Your task to perform on an android device: Open Maps and search for coffee Image 0: 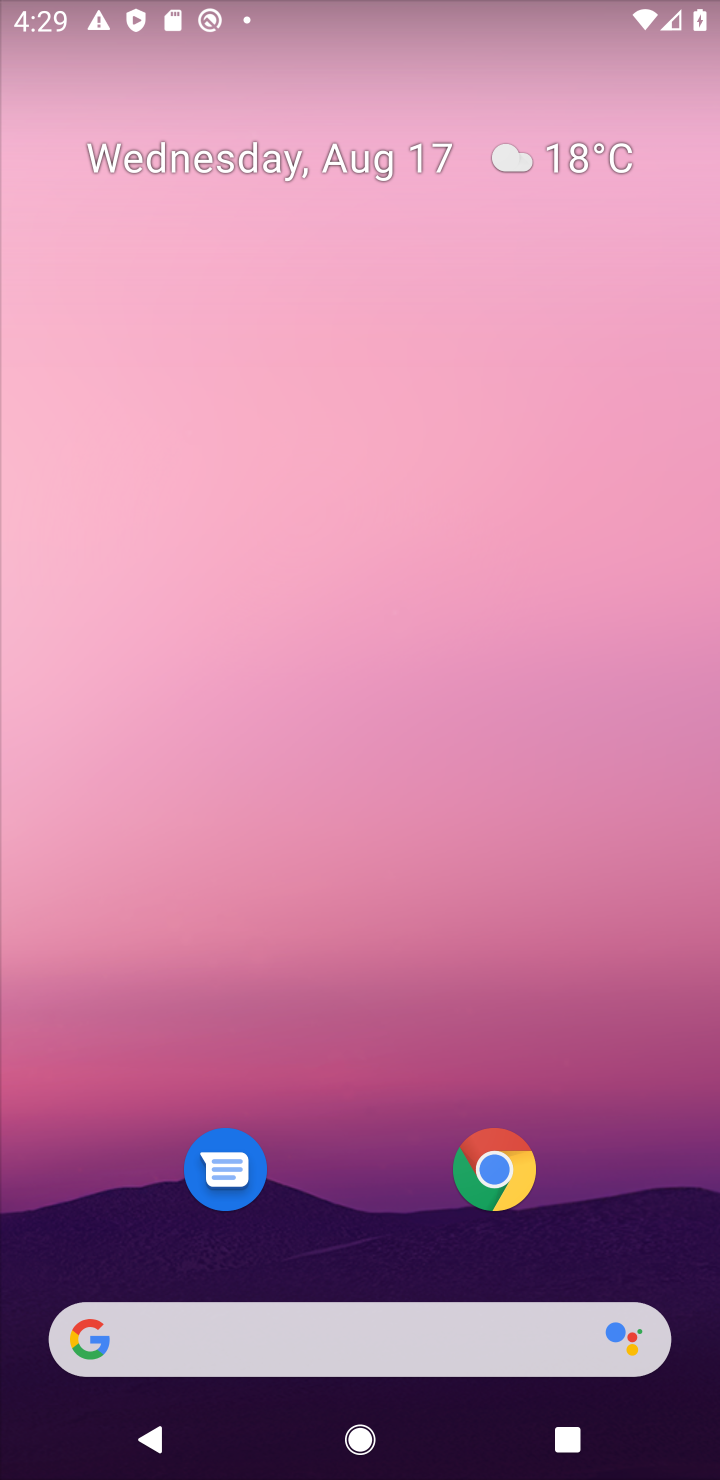
Step 0: drag from (312, 1178) to (293, 295)
Your task to perform on an android device: Open Maps and search for coffee Image 1: 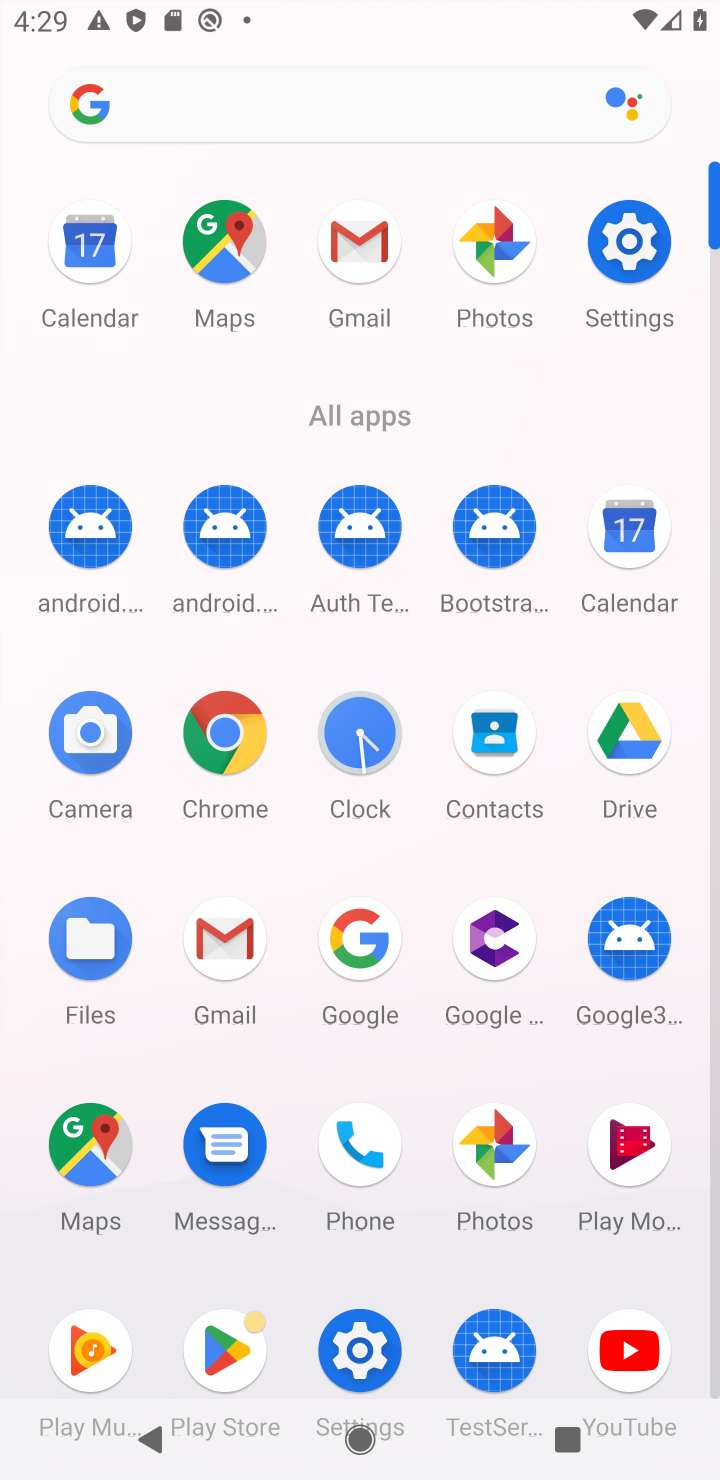
Step 1: click (67, 1176)
Your task to perform on an android device: Open Maps and search for coffee Image 2: 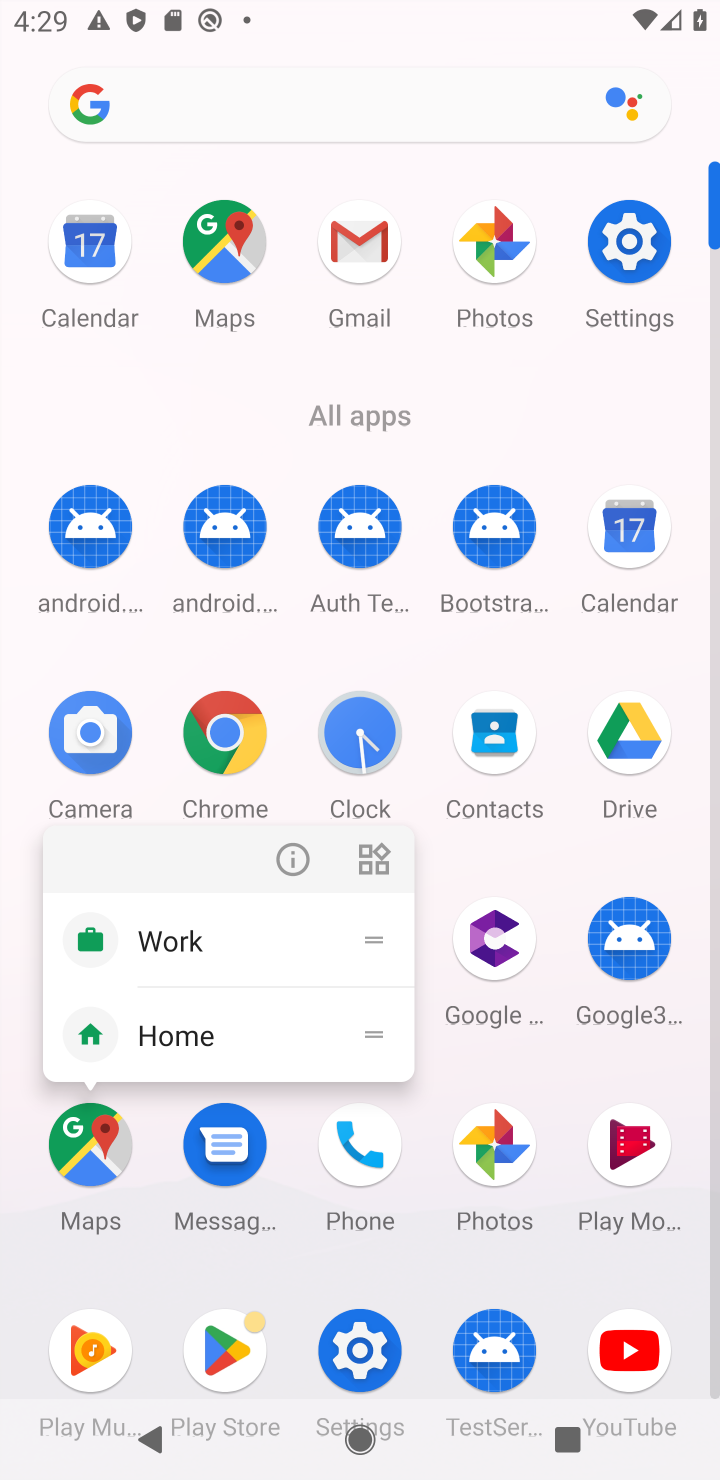
Step 2: click (67, 1154)
Your task to perform on an android device: Open Maps and search for coffee Image 3: 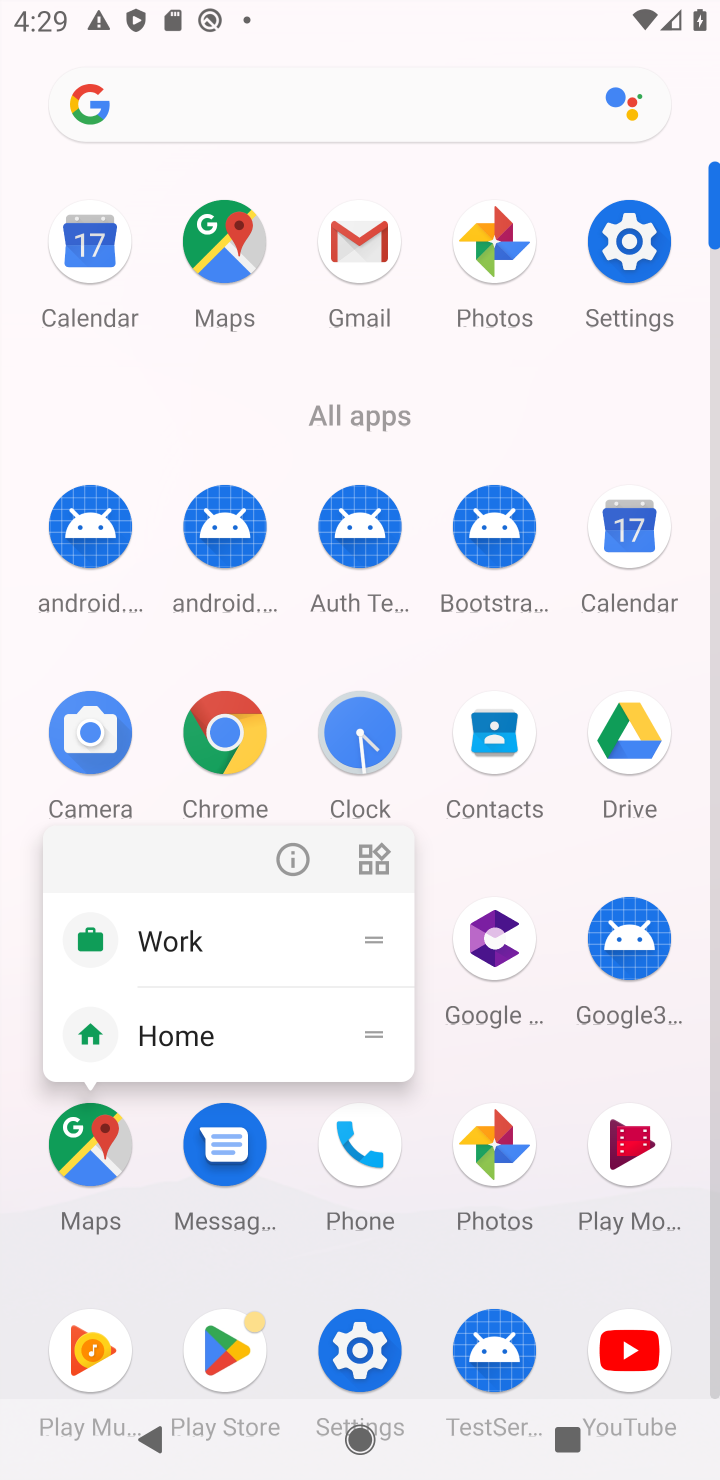
Step 3: click (67, 1152)
Your task to perform on an android device: Open Maps and search for coffee Image 4: 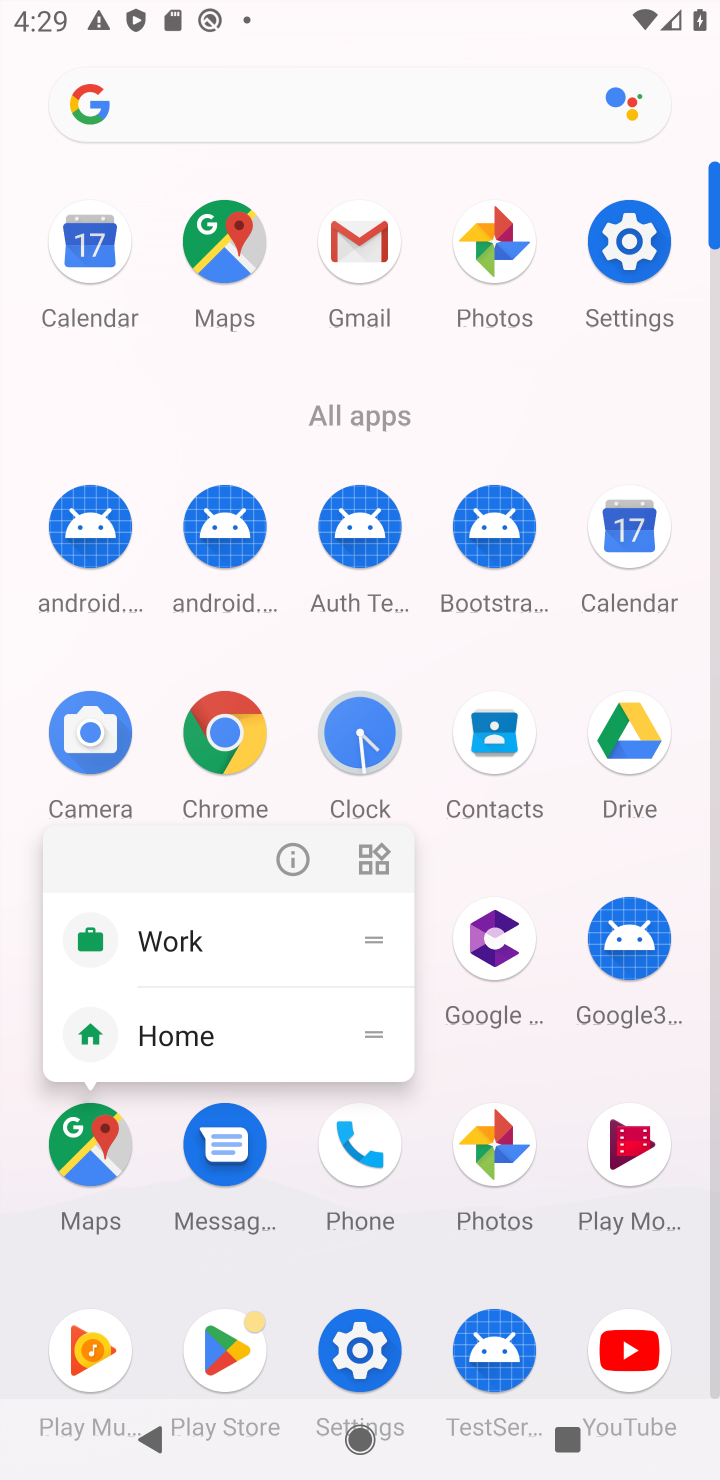
Step 4: click (67, 1152)
Your task to perform on an android device: Open Maps and search for coffee Image 5: 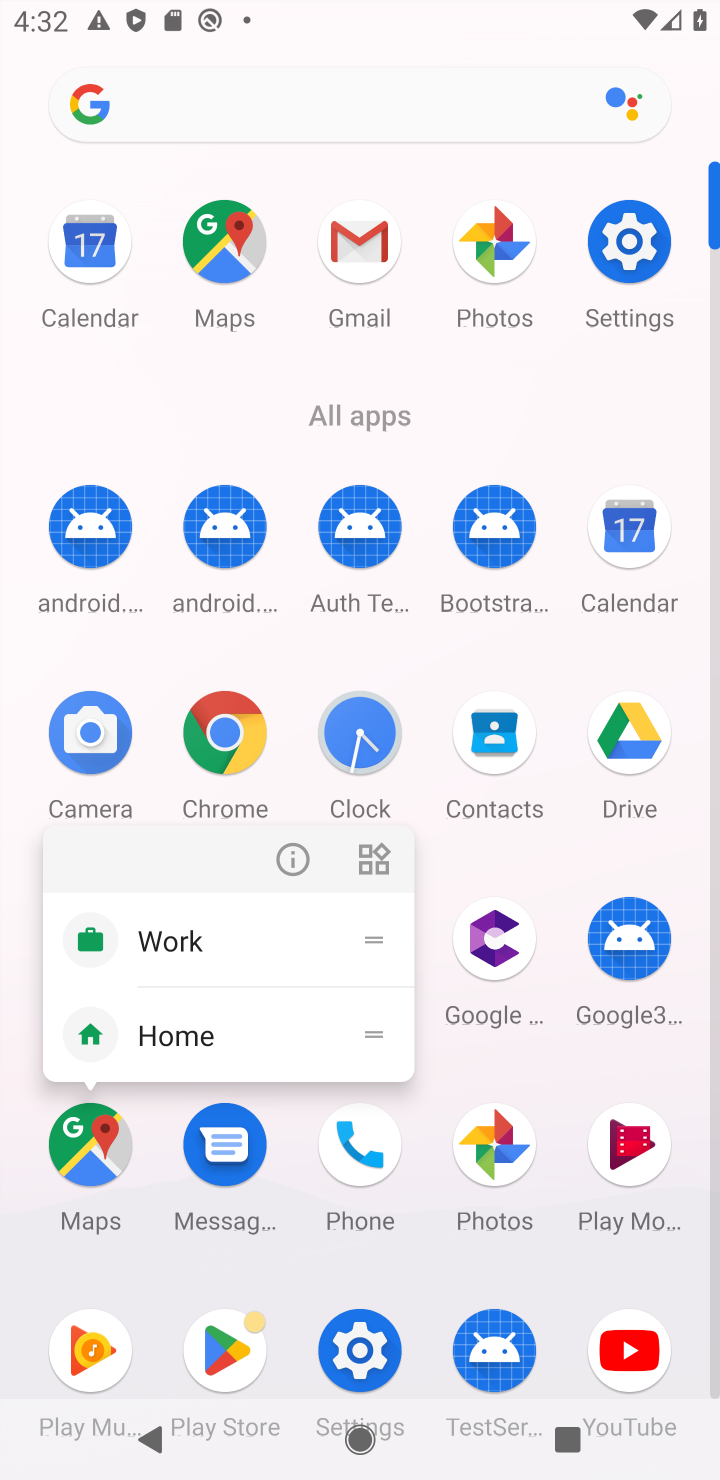
Step 5: click (85, 1172)
Your task to perform on an android device: Open Maps and search for coffee Image 6: 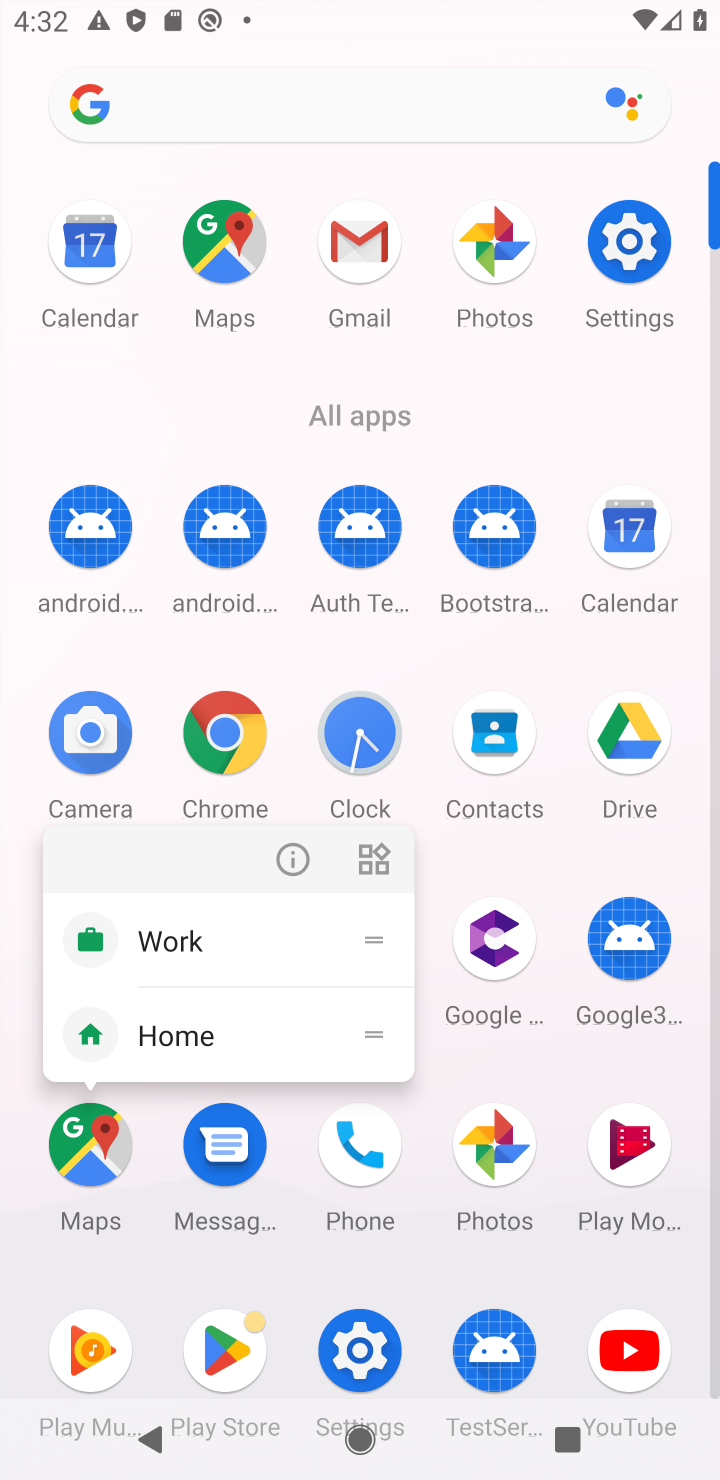
Step 6: click (91, 1164)
Your task to perform on an android device: Open Maps and search for coffee Image 7: 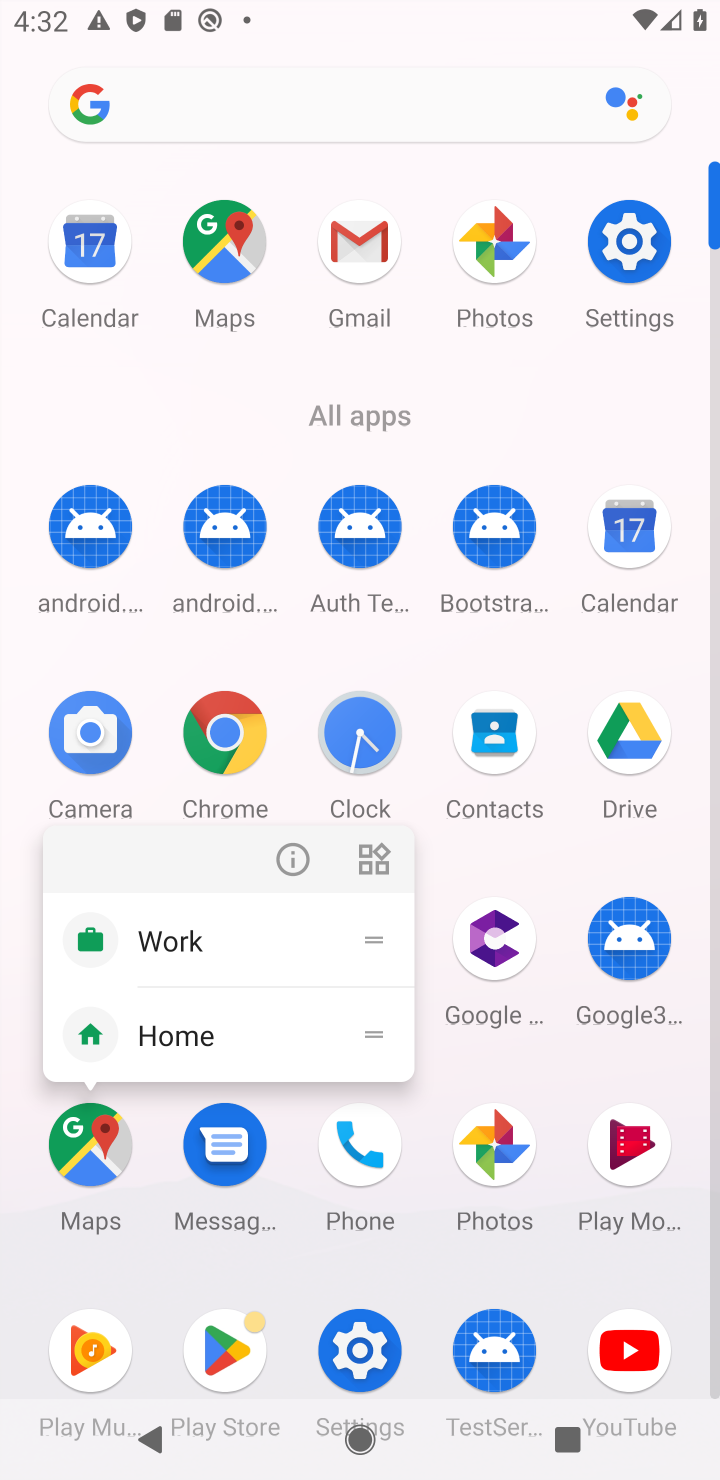
Step 7: click (91, 1164)
Your task to perform on an android device: Open Maps and search for coffee Image 8: 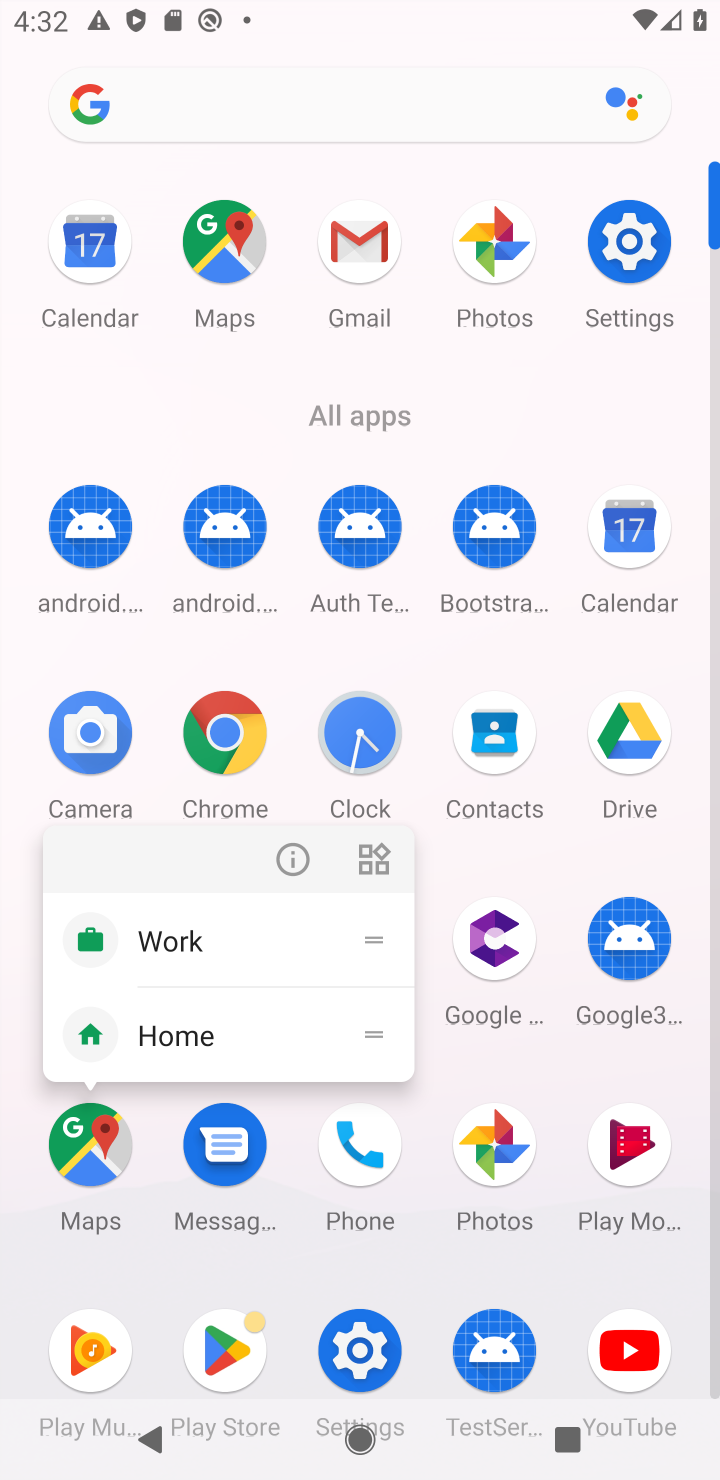
Step 8: click (91, 1164)
Your task to perform on an android device: Open Maps and search for coffee Image 9: 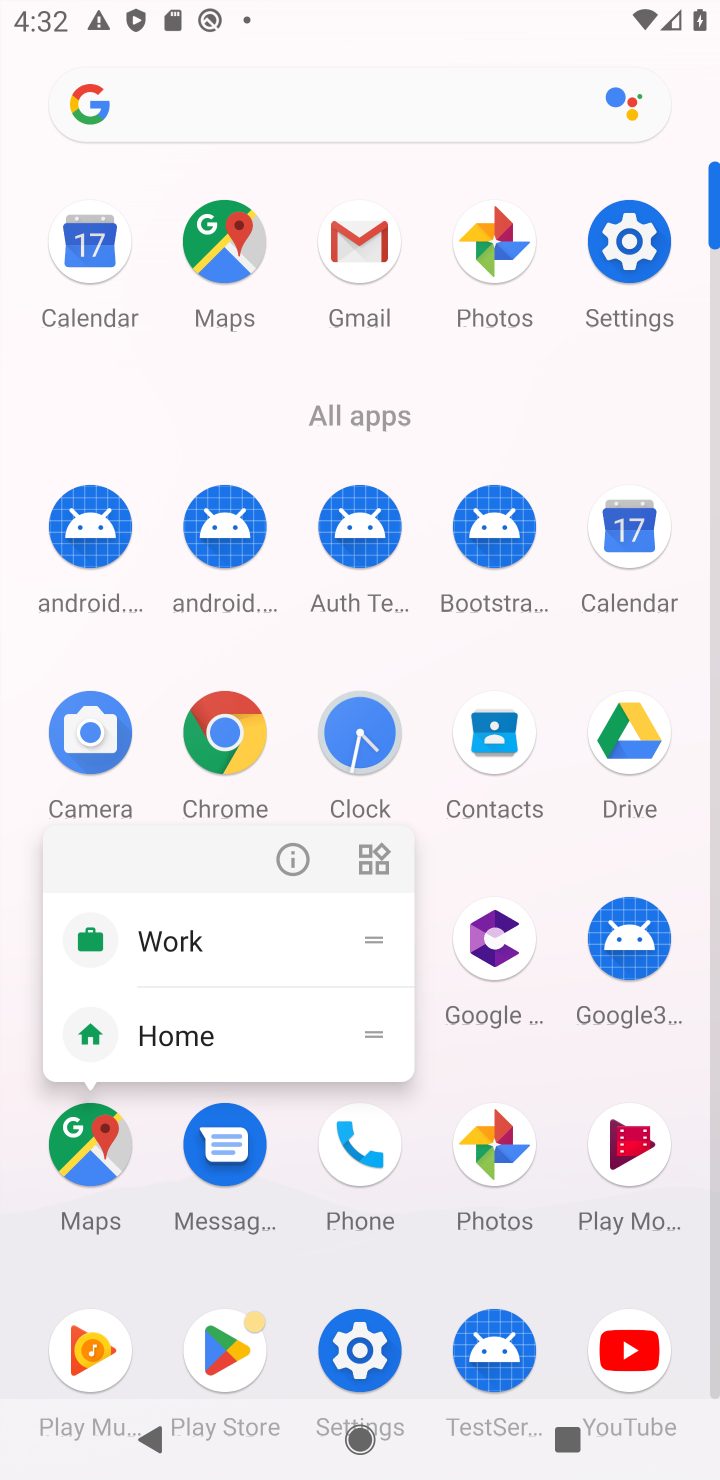
Step 9: click (91, 1164)
Your task to perform on an android device: Open Maps and search for coffee Image 10: 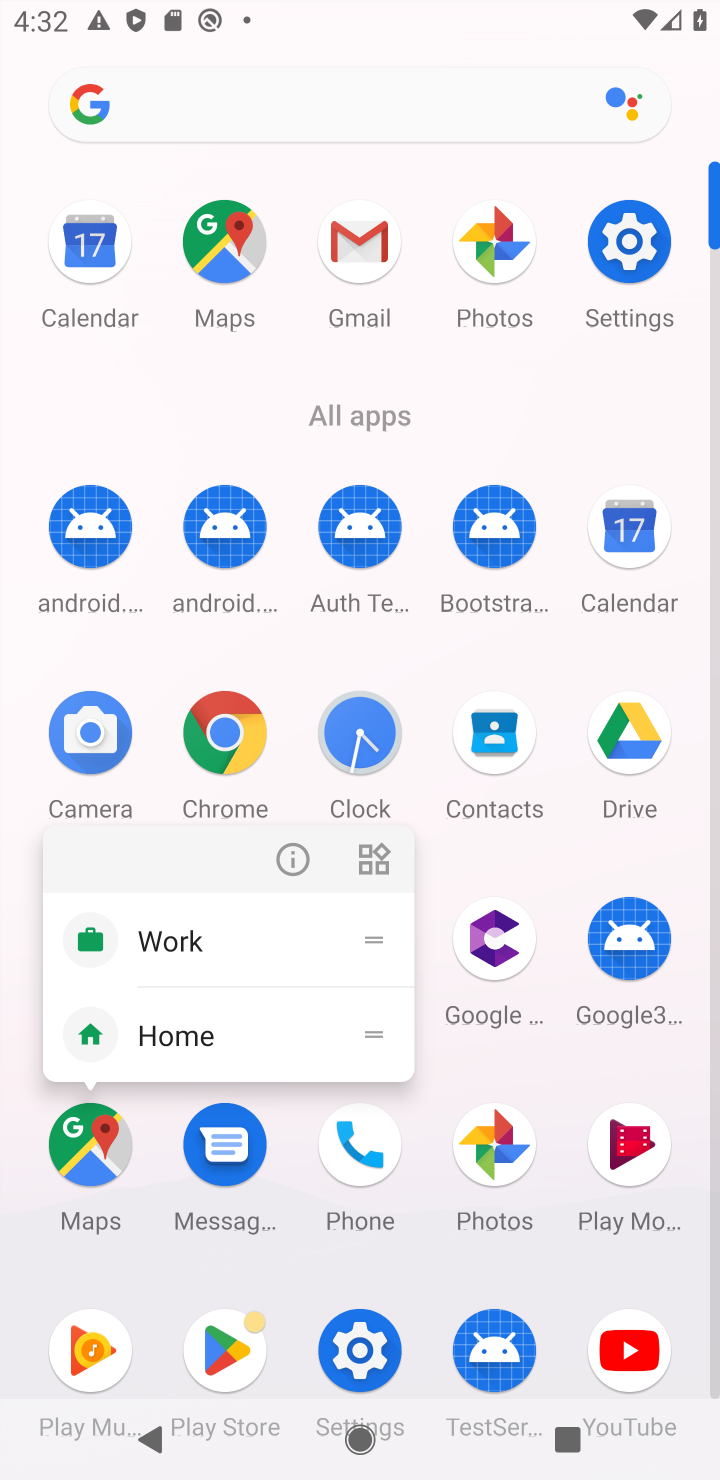
Step 10: click (85, 1164)
Your task to perform on an android device: Open Maps and search for coffee Image 11: 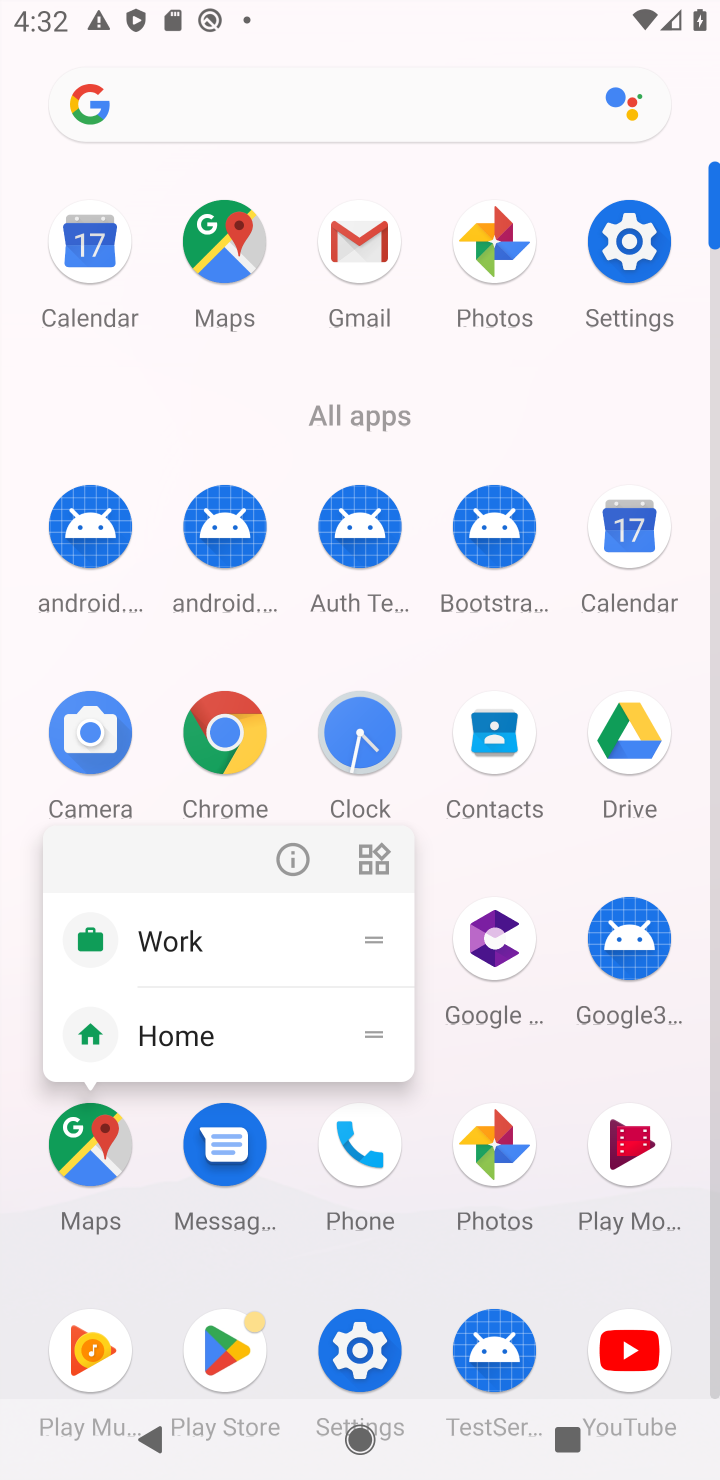
Step 11: click (85, 1164)
Your task to perform on an android device: Open Maps and search for coffee Image 12: 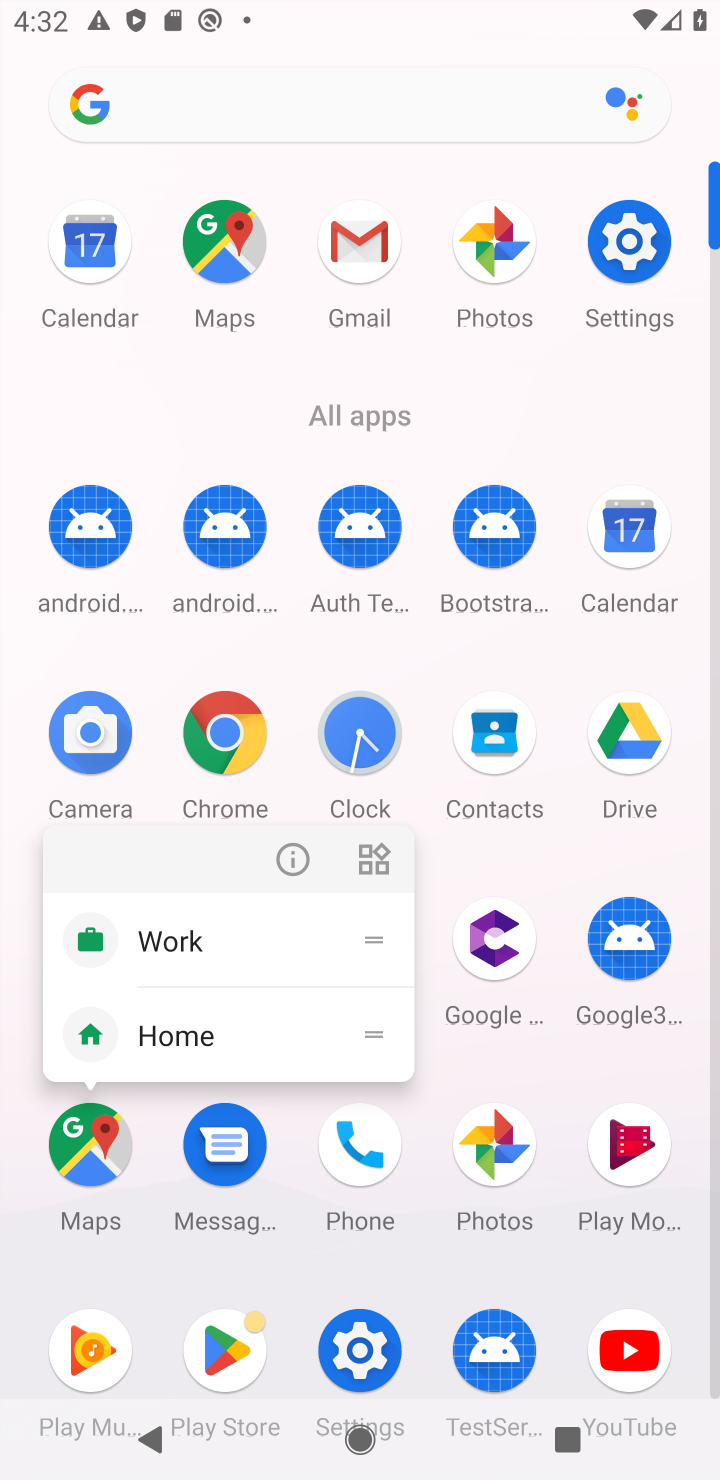
Step 12: click (85, 1164)
Your task to perform on an android device: Open Maps and search for coffee Image 13: 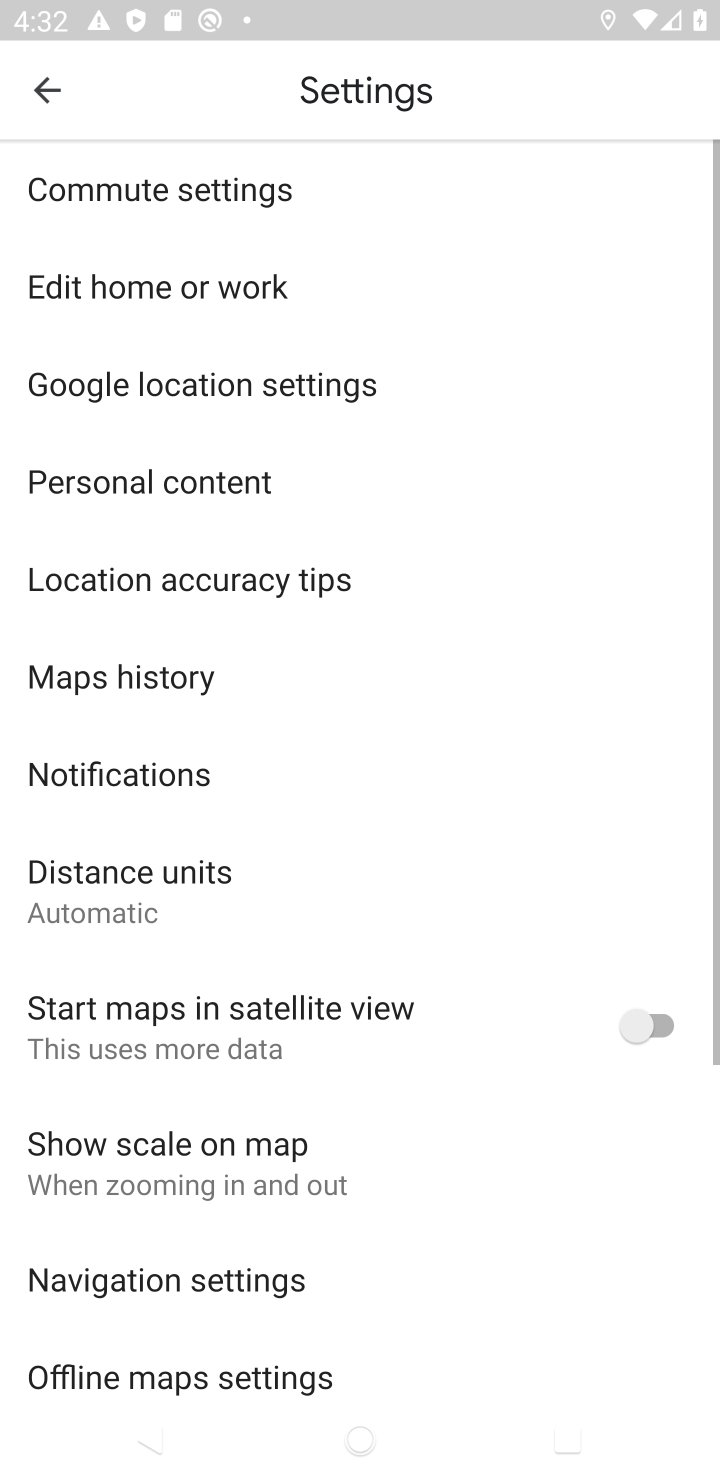
Step 13: click (47, 118)
Your task to perform on an android device: Open Maps and search for coffee Image 14: 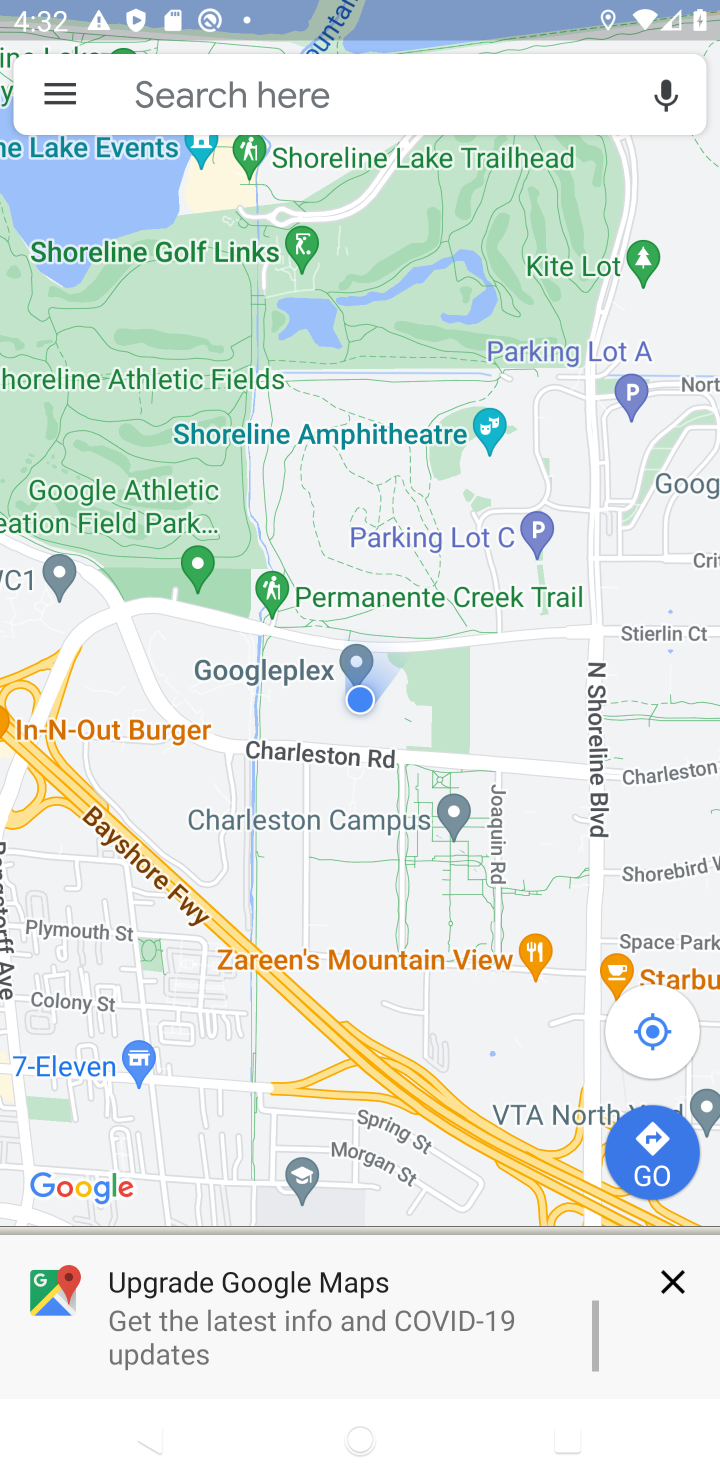
Step 14: click (236, 102)
Your task to perform on an android device: Open Maps and search for coffee Image 15: 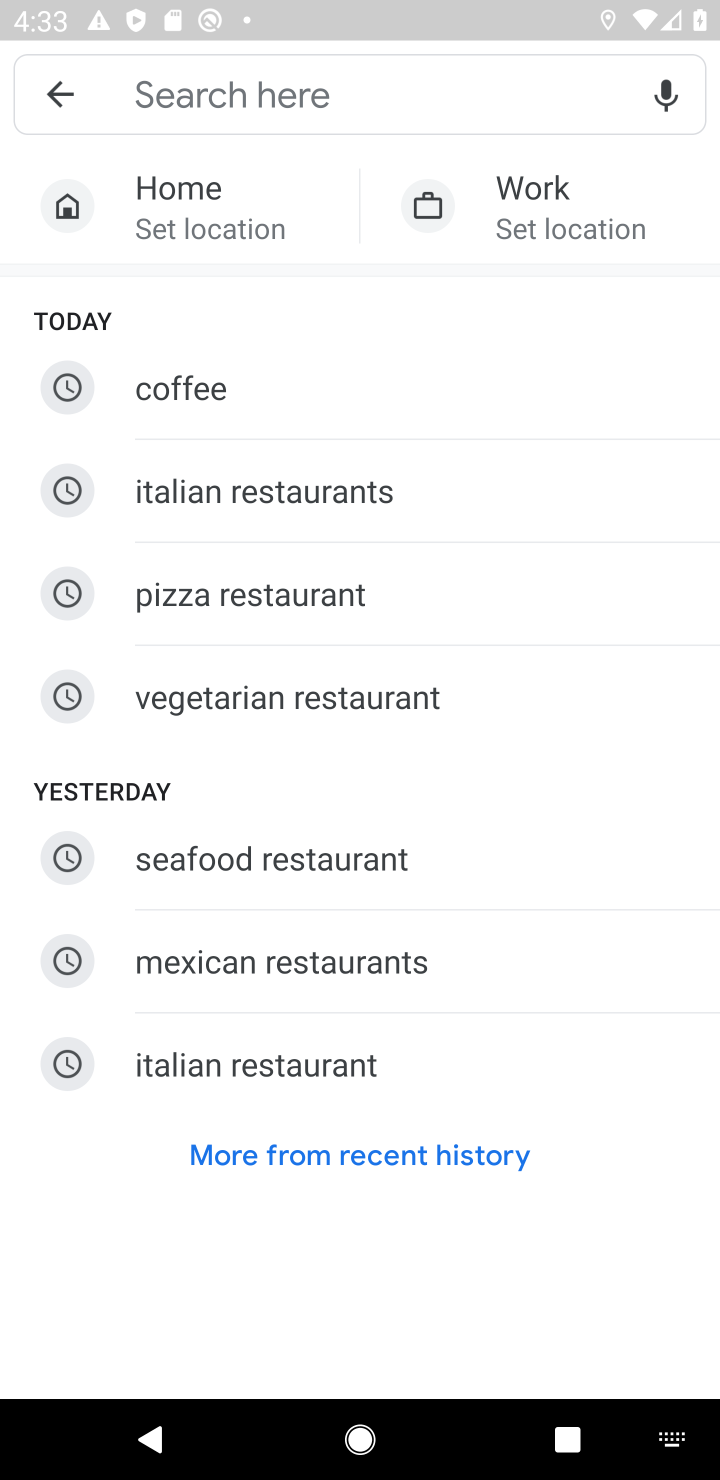
Step 15: type "coffee"
Your task to perform on an android device: Open Maps and search for coffee Image 16: 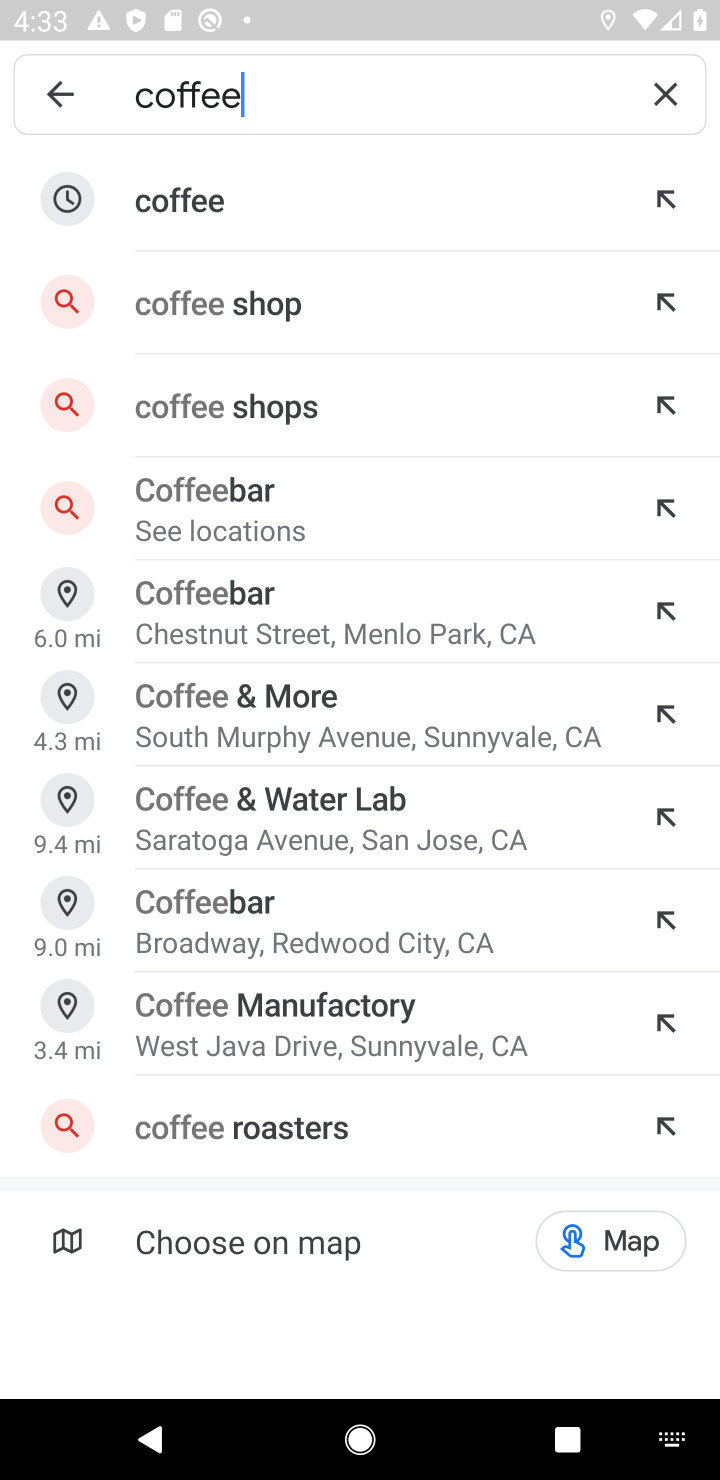
Step 16: click (228, 193)
Your task to perform on an android device: Open Maps and search for coffee Image 17: 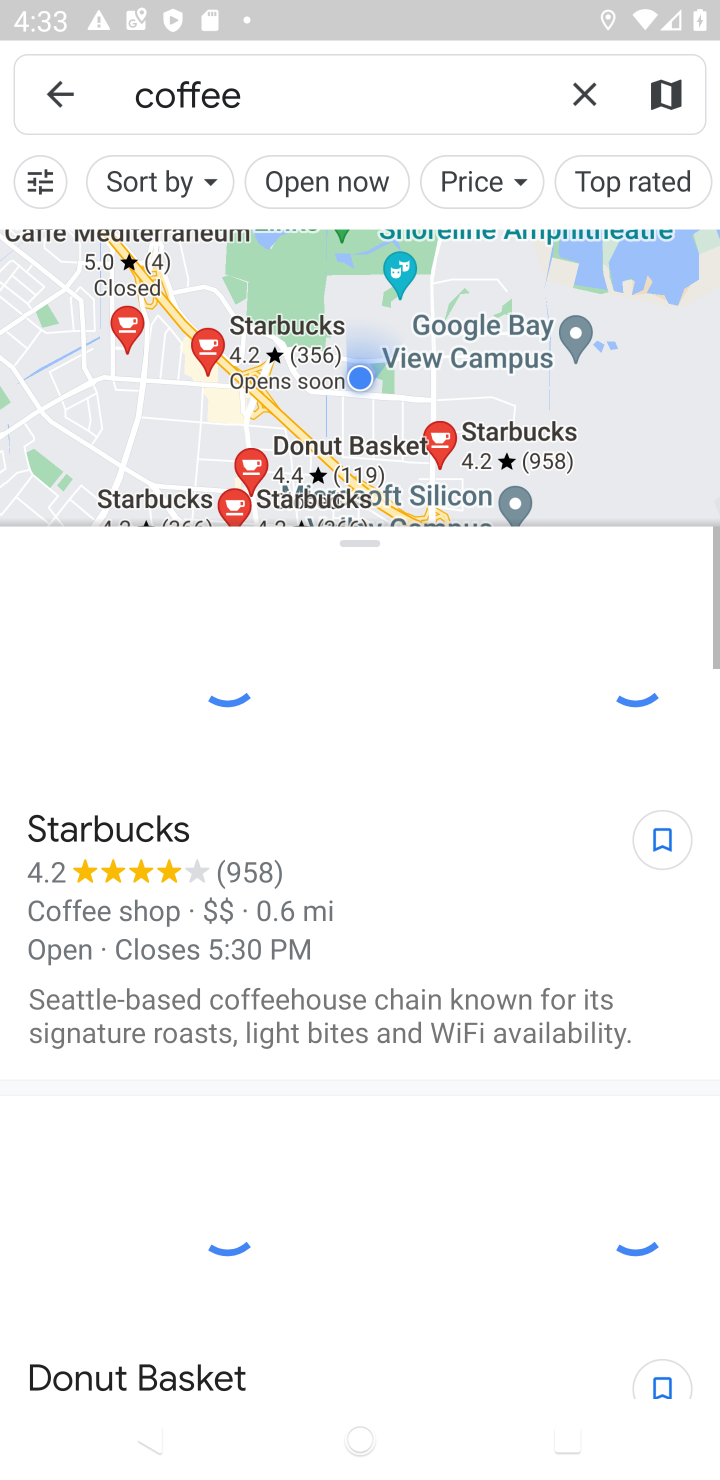
Step 17: task complete